Your task to perform on an android device: What's the weather? Image 0: 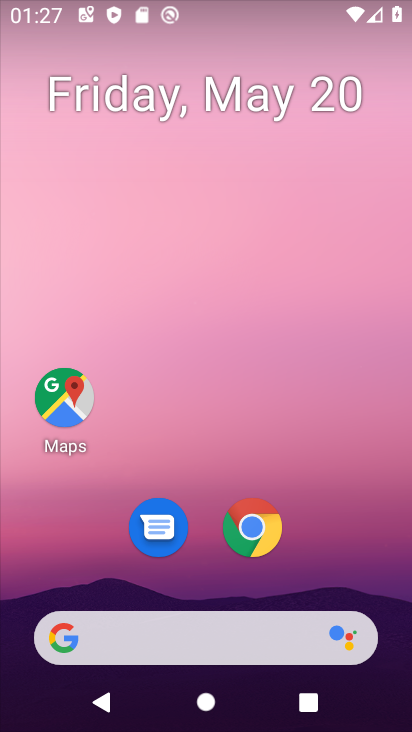
Step 0: press home button
Your task to perform on an android device: What's the weather? Image 1: 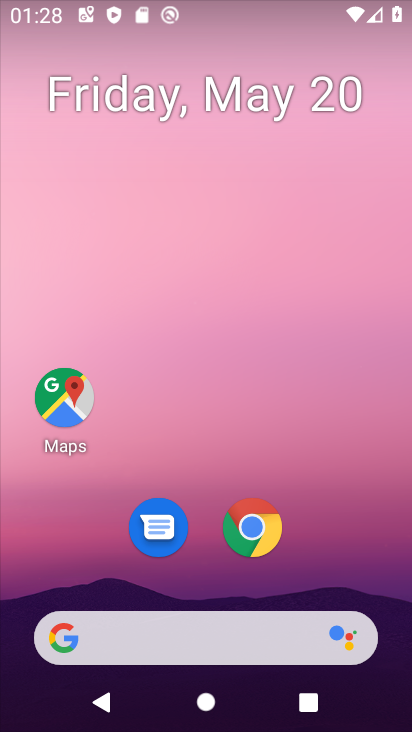
Step 1: click (64, 642)
Your task to perform on an android device: What's the weather? Image 2: 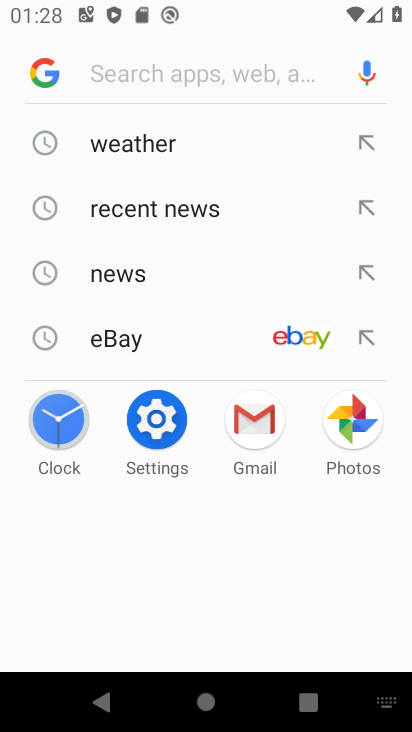
Step 2: click (158, 142)
Your task to perform on an android device: What's the weather? Image 3: 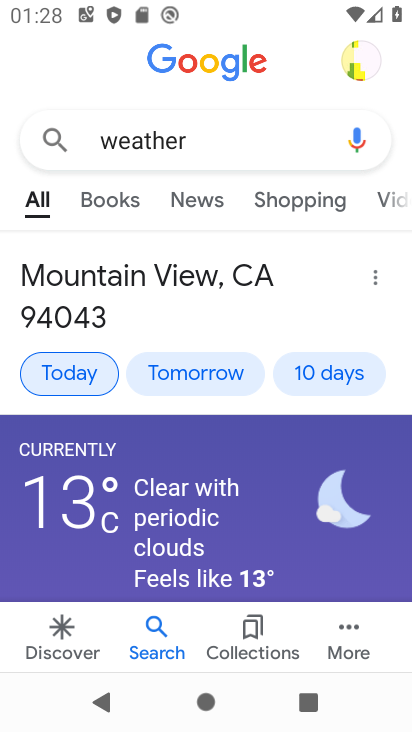
Step 3: task complete